Your task to perform on an android device: toggle pop-ups in chrome Image 0: 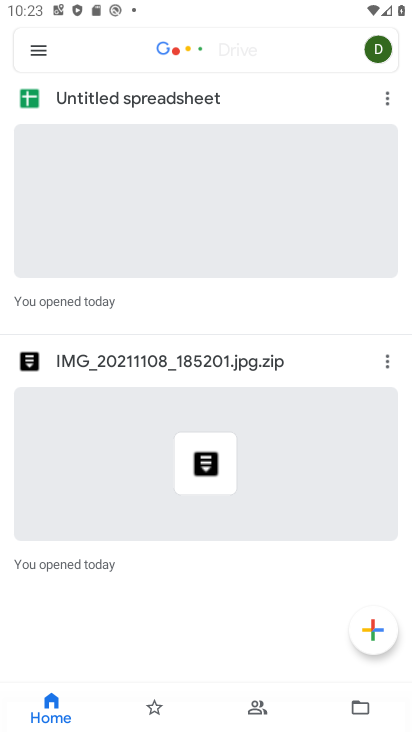
Step 0: press home button
Your task to perform on an android device: toggle pop-ups in chrome Image 1: 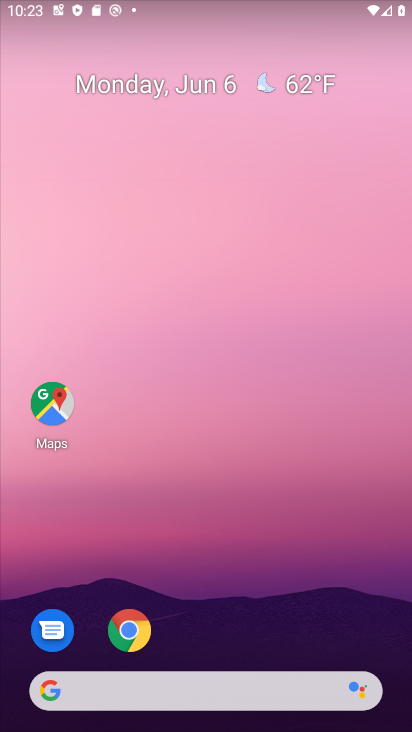
Step 1: drag from (390, 537) to (357, 174)
Your task to perform on an android device: toggle pop-ups in chrome Image 2: 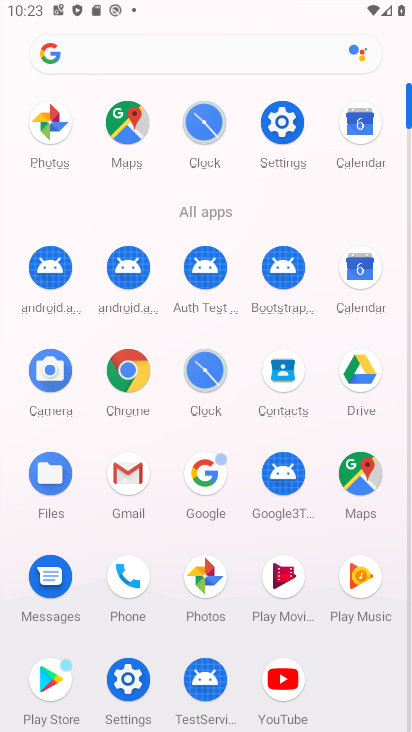
Step 2: click (110, 387)
Your task to perform on an android device: toggle pop-ups in chrome Image 3: 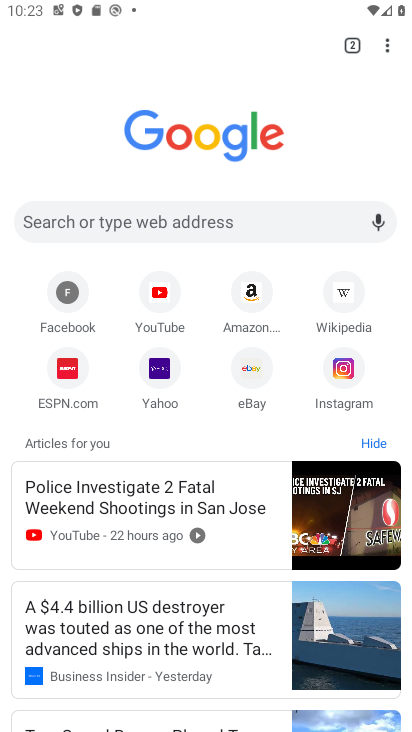
Step 3: drag from (394, 53) to (292, 386)
Your task to perform on an android device: toggle pop-ups in chrome Image 4: 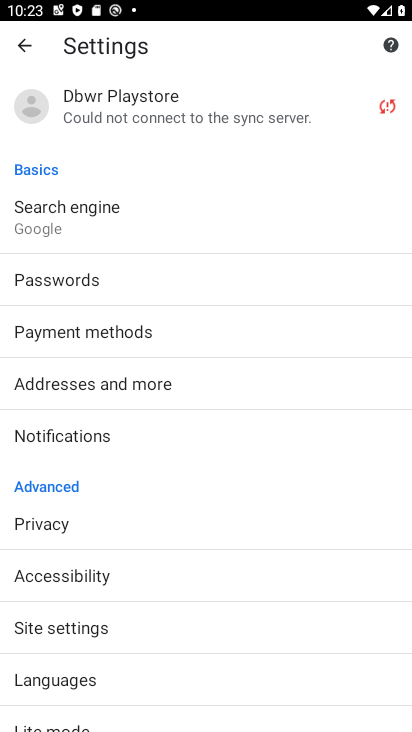
Step 4: drag from (265, 658) to (271, 489)
Your task to perform on an android device: toggle pop-ups in chrome Image 5: 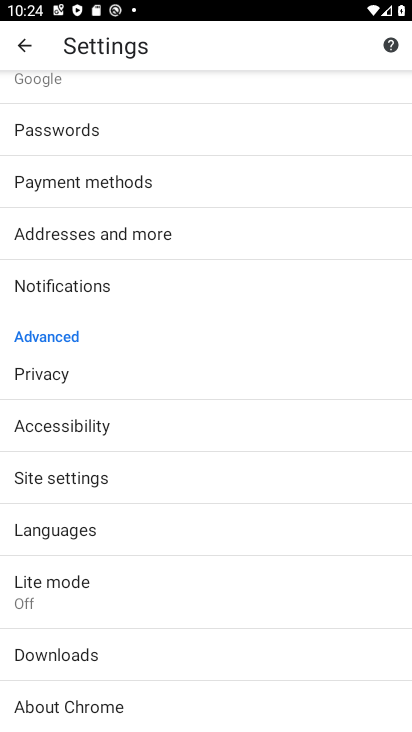
Step 5: click (114, 476)
Your task to perform on an android device: toggle pop-ups in chrome Image 6: 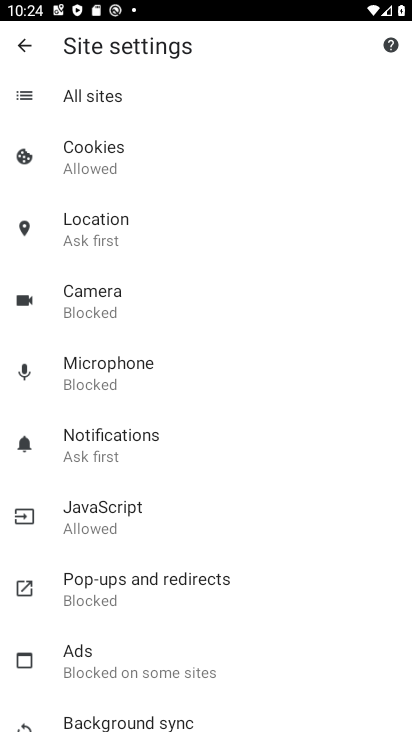
Step 6: click (179, 581)
Your task to perform on an android device: toggle pop-ups in chrome Image 7: 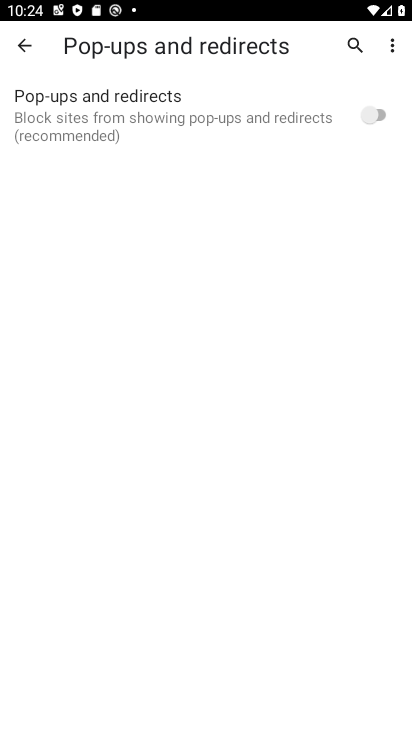
Step 7: click (378, 112)
Your task to perform on an android device: toggle pop-ups in chrome Image 8: 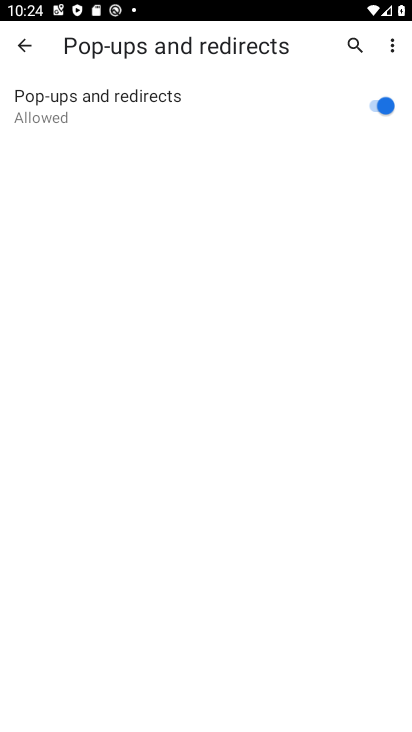
Step 8: task complete